Your task to perform on an android device: turn on data saver in the chrome app Image 0: 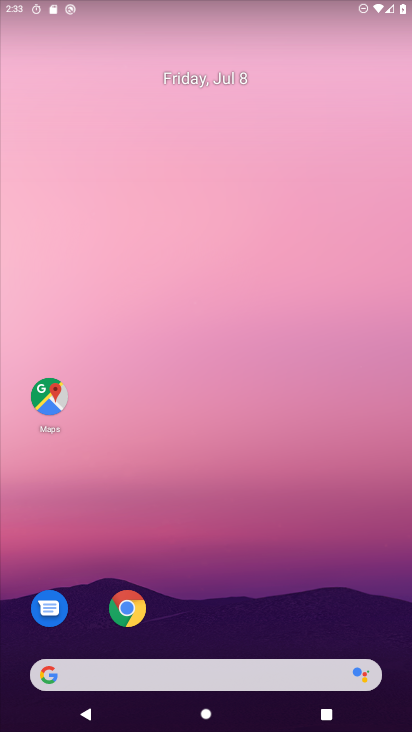
Step 0: click (131, 616)
Your task to perform on an android device: turn on data saver in the chrome app Image 1: 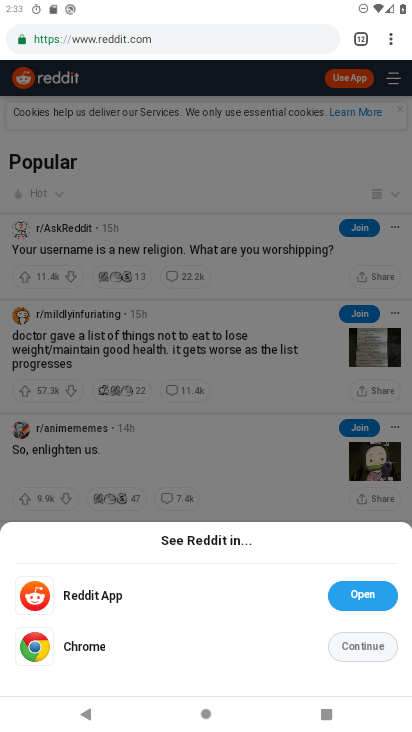
Step 1: click (393, 42)
Your task to perform on an android device: turn on data saver in the chrome app Image 2: 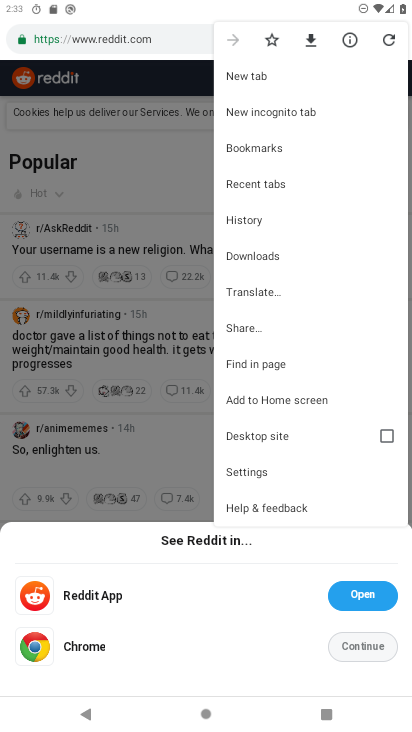
Step 2: click (254, 468)
Your task to perform on an android device: turn on data saver in the chrome app Image 3: 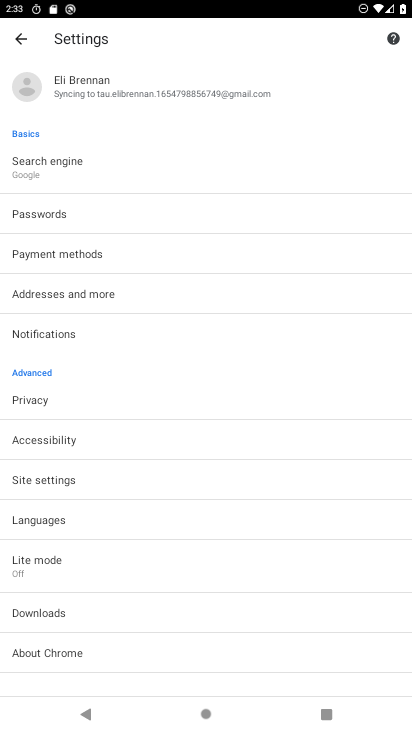
Step 3: click (34, 557)
Your task to perform on an android device: turn on data saver in the chrome app Image 4: 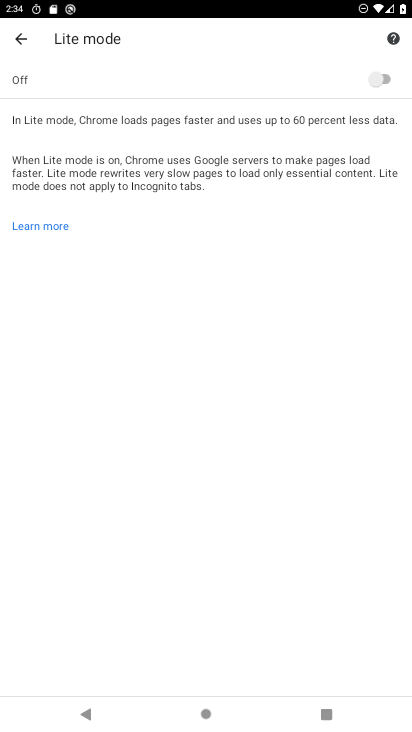
Step 4: click (387, 80)
Your task to perform on an android device: turn on data saver in the chrome app Image 5: 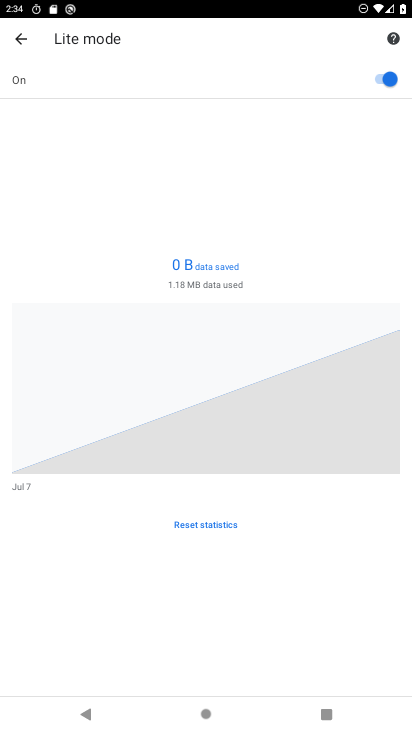
Step 5: task complete